Your task to perform on an android device: turn off notifications in google photos Image 0: 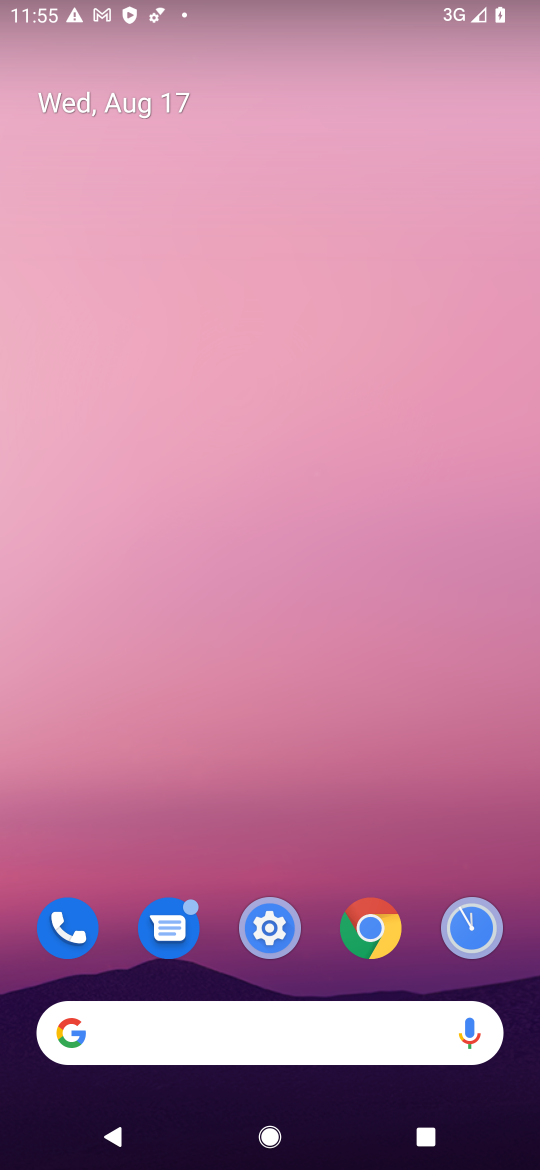
Step 0: drag from (342, 806) to (335, 284)
Your task to perform on an android device: turn off notifications in google photos Image 1: 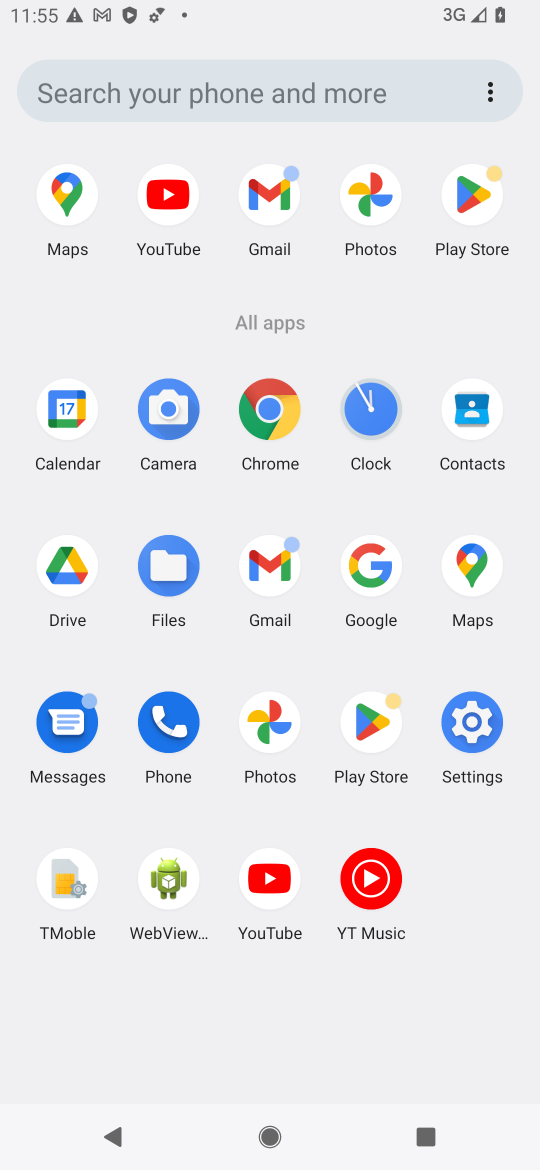
Step 1: click (389, 218)
Your task to perform on an android device: turn off notifications in google photos Image 2: 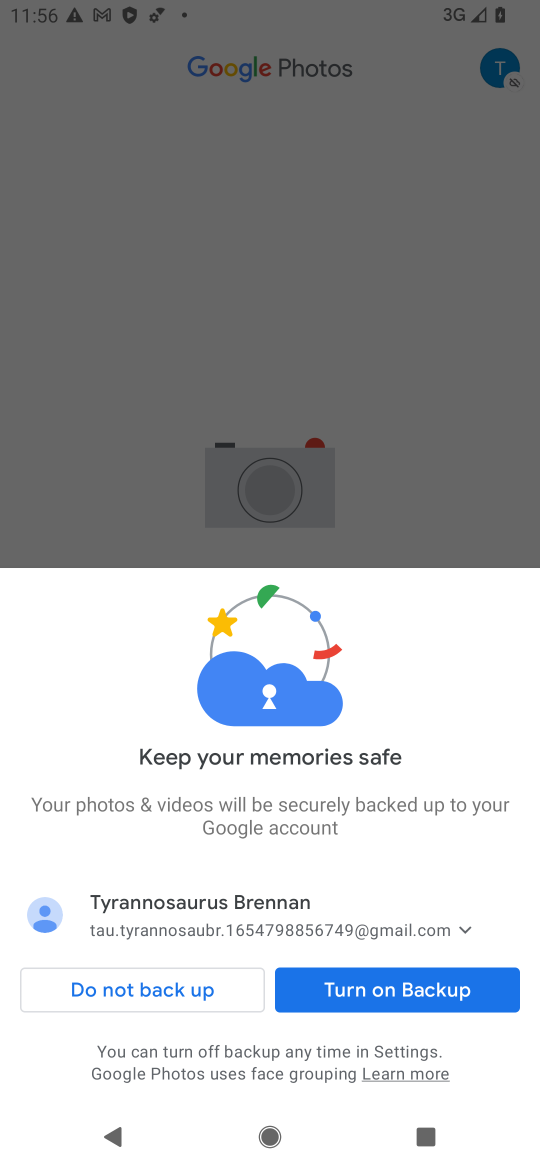
Step 2: click (183, 1008)
Your task to perform on an android device: turn off notifications in google photos Image 3: 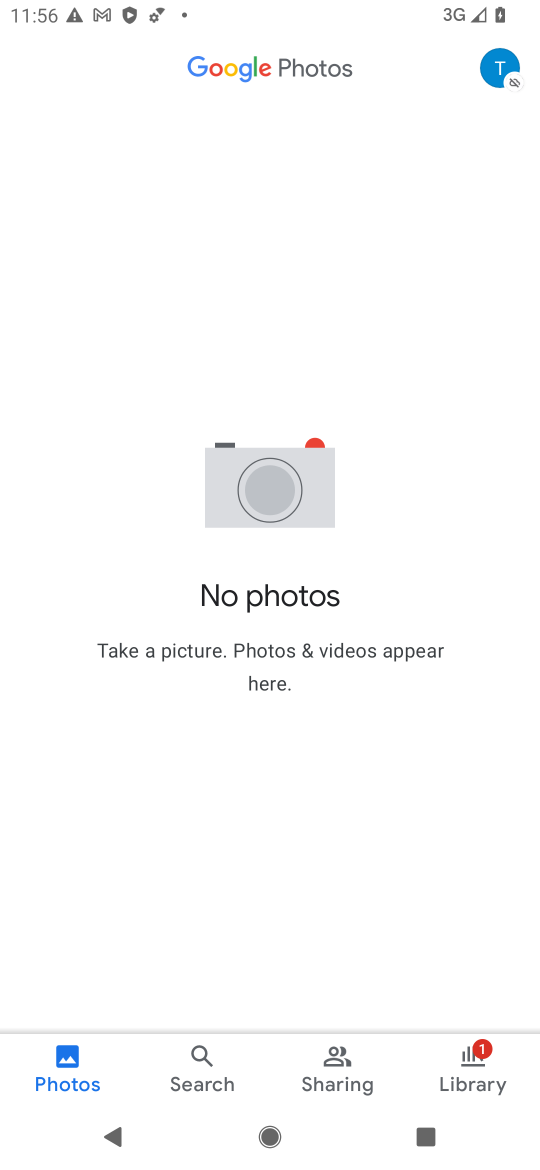
Step 3: click (498, 85)
Your task to perform on an android device: turn off notifications in google photos Image 4: 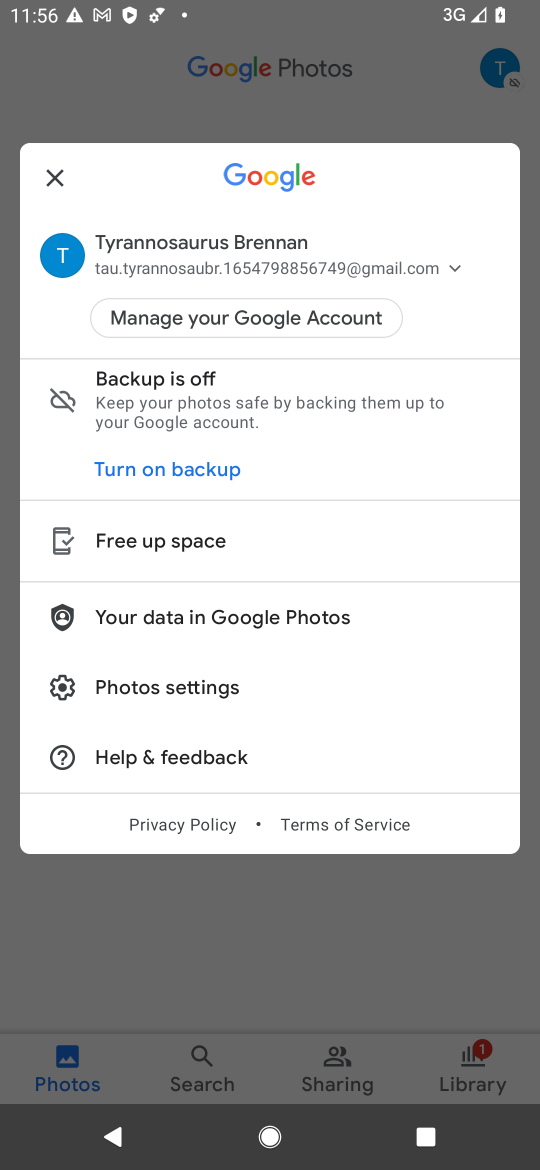
Step 4: click (144, 687)
Your task to perform on an android device: turn off notifications in google photos Image 5: 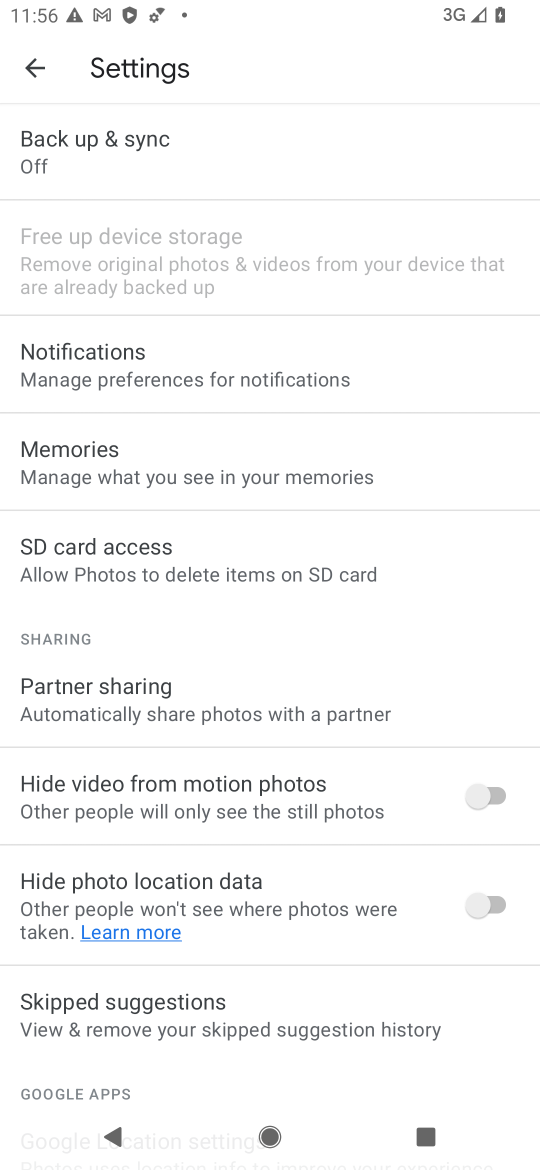
Step 5: click (186, 376)
Your task to perform on an android device: turn off notifications in google photos Image 6: 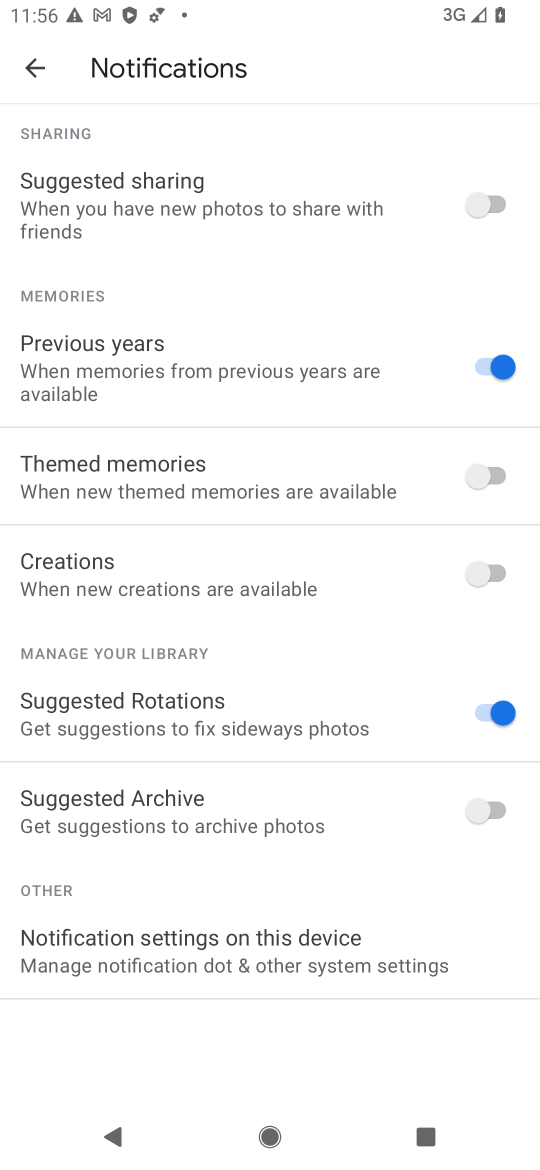
Step 6: drag from (181, 428) to (187, 818)
Your task to perform on an android device: turn off notifications in google photos Image 7: 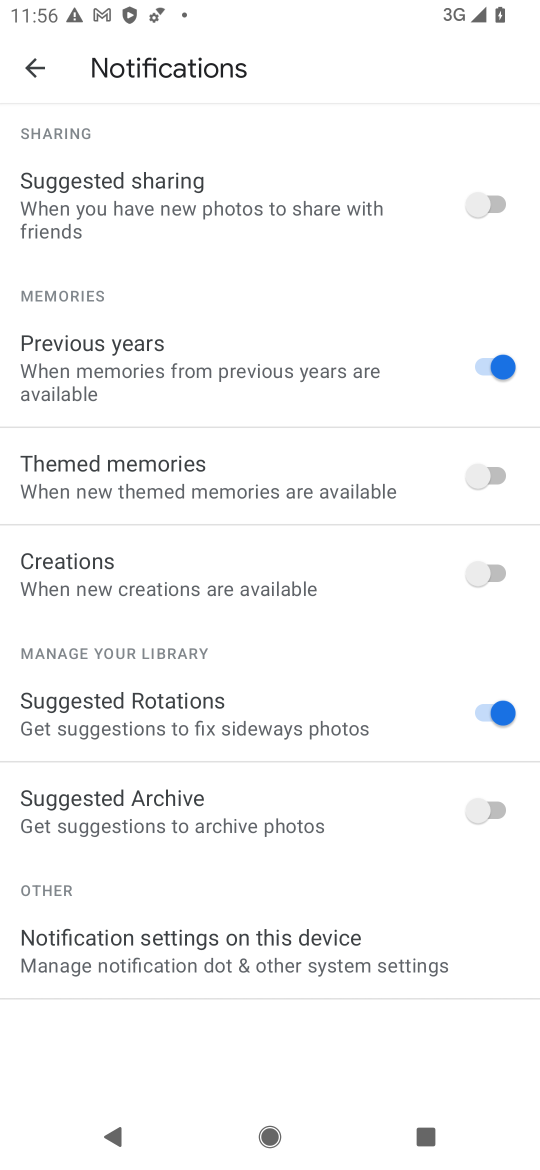
Step 7: drag from (291, 823) to (288, 319)
Your task to perform on an android device: turn off notifications in google photos Image 8: 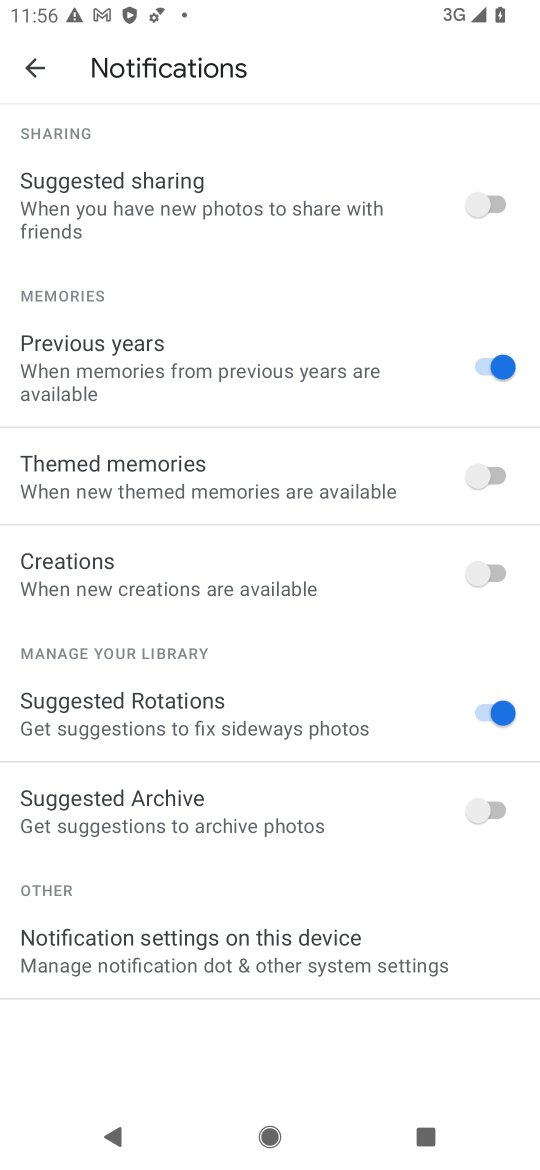
Step 8: click (277, 950)
Your task to perform on an android device: turn off notifications in google photos Image 9: 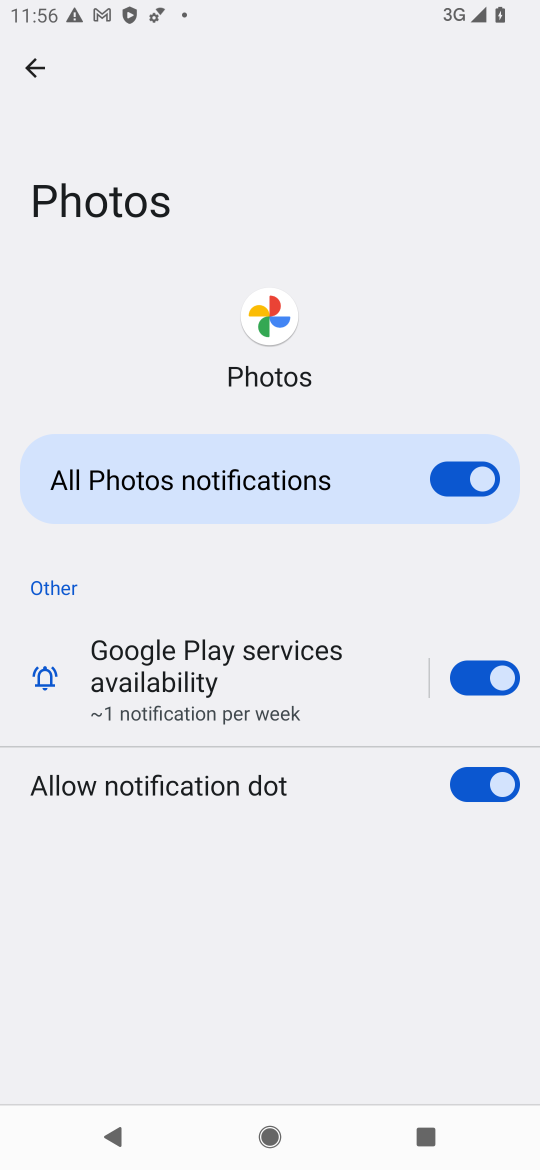
Step 9: click (446, 479)
Your task to perform on an android device: turn off notifications in google photos Image 10: 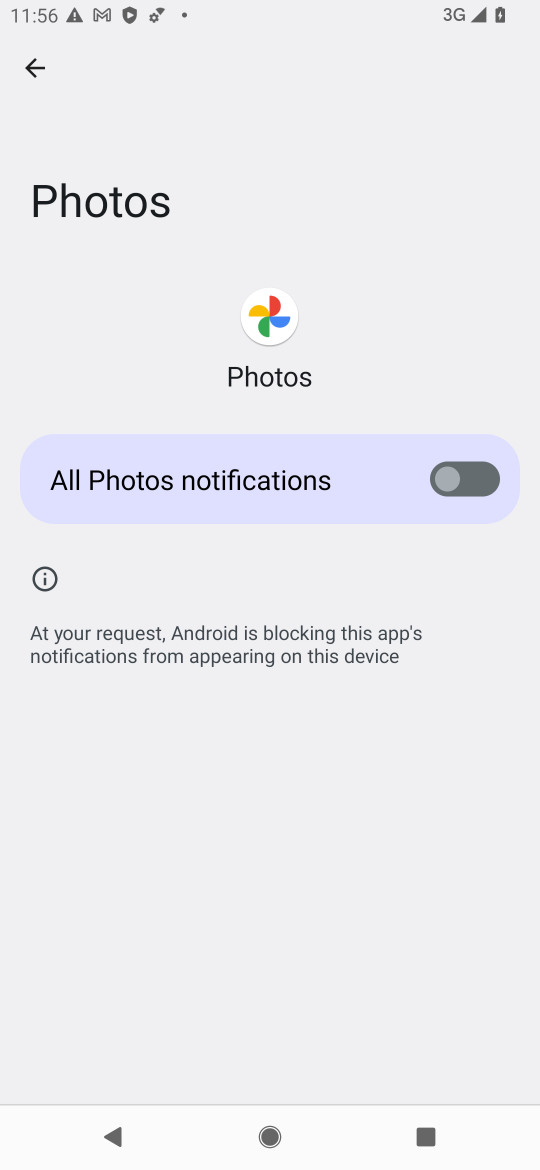
Step 10: task complete